Your task to perform on an android device: Open Amazon Image 0: 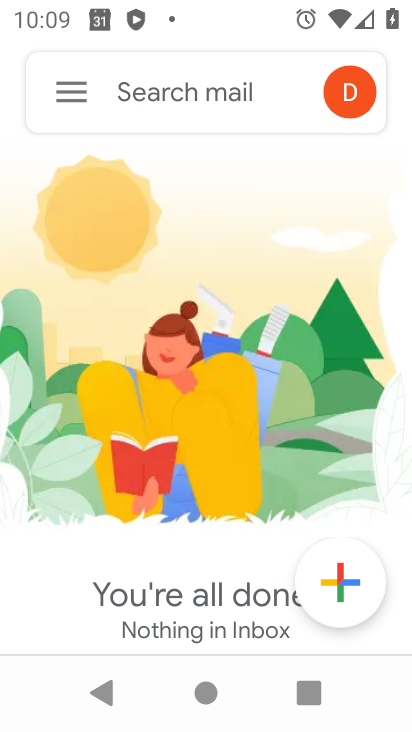
Step 0: press home button
Your task to perform on an android device: Open Amazon Image 1: 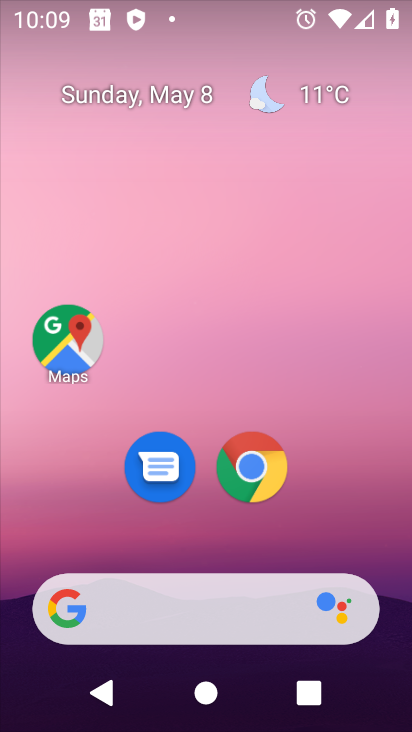
Step 1: click (255, 467)
Your task to perform on an android device: Open Amazon Image 2: 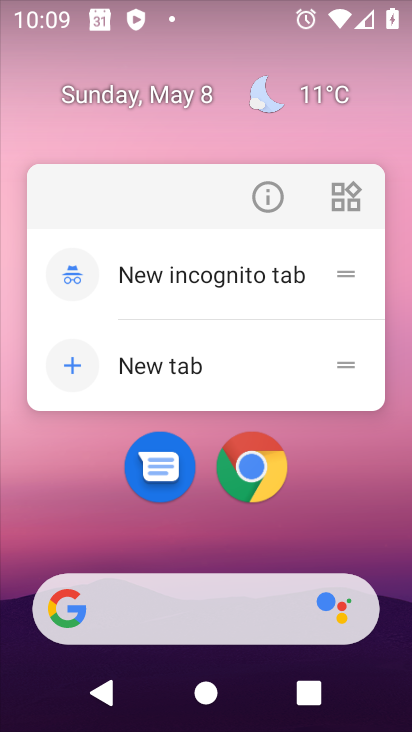
Step 2: click (255, 466)
Your task to perform on an android device: Open Amazon Image 3: 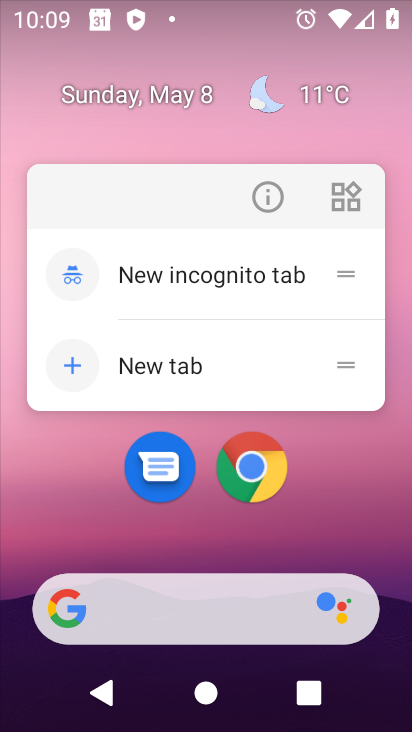
Step 3: click (255, 465)
Your task to perform on an android device: Open Amazon Image 4: 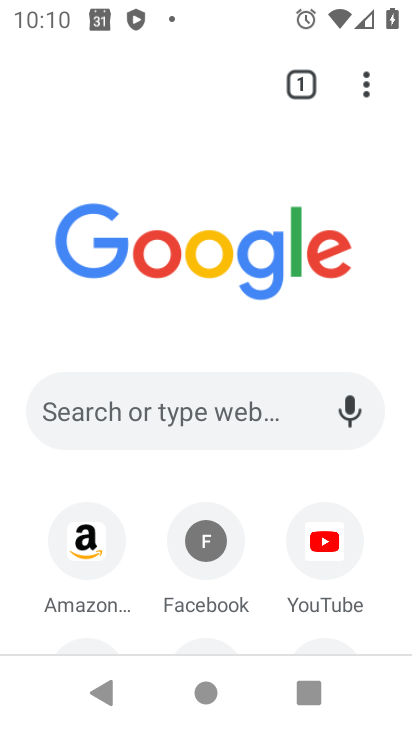
Step 4: click (93, 538)
Your task to perform on an android device: Open Amazon Image 5: 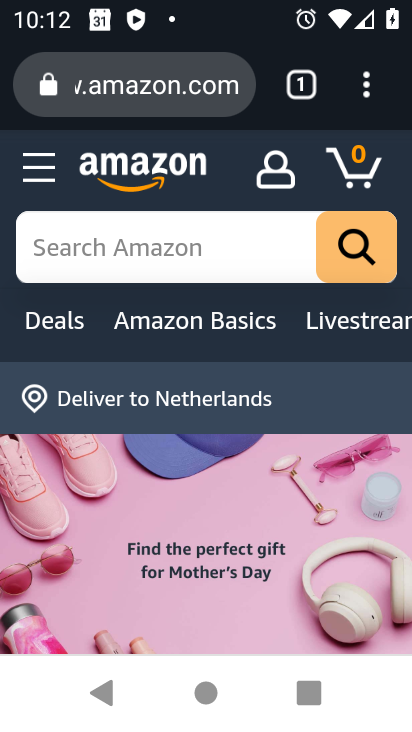
Step 5: task complete